Your task to perform on an android device: add a contact Image 0: 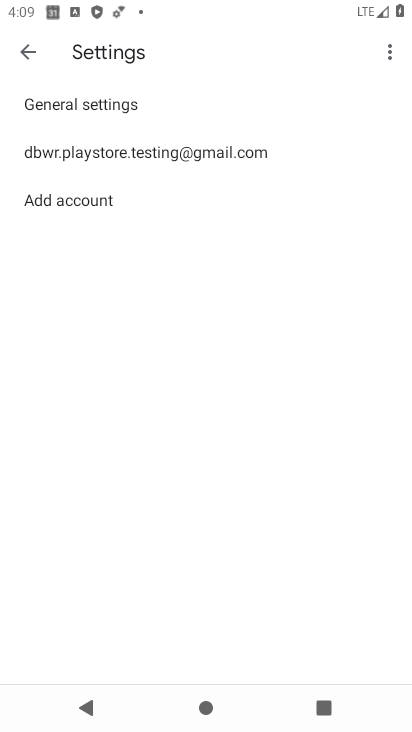
Step 0: press home button
Your task to perform on an android device: add a contact Image 1: 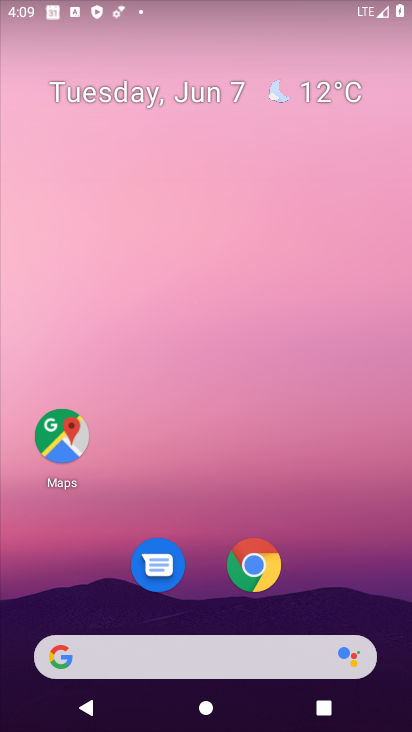
Step 1: drag from (319, 606) to (325, 105)
Your task to perform on an android device: add a contact Image 2: 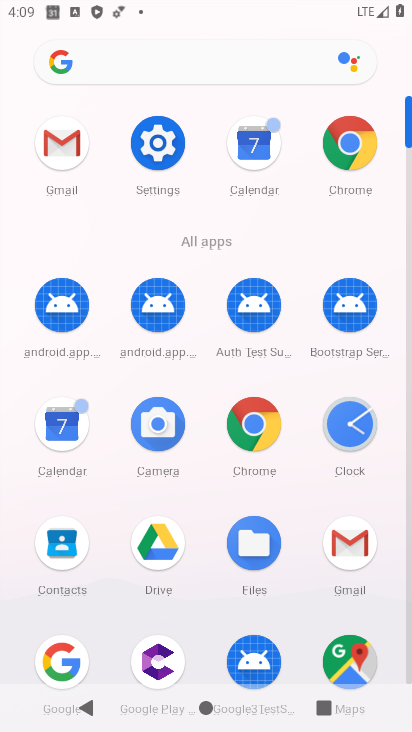
Step 2: click (73, 547)
Your task to perform on an android device: add a contact Image 3: 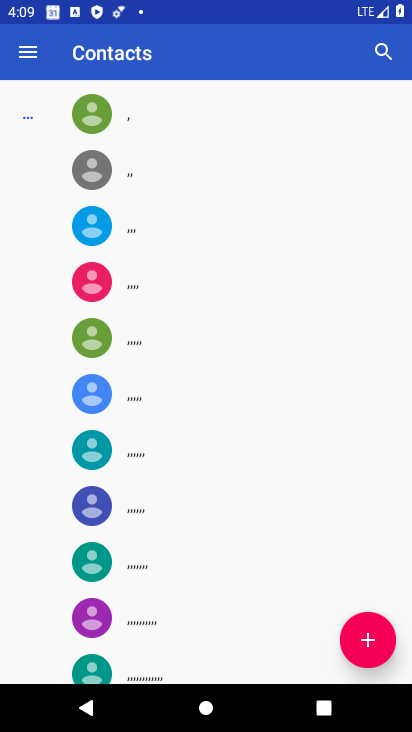
Step 3: click (381, 642)
Your task to perform on an android device: add a contact Image 4: 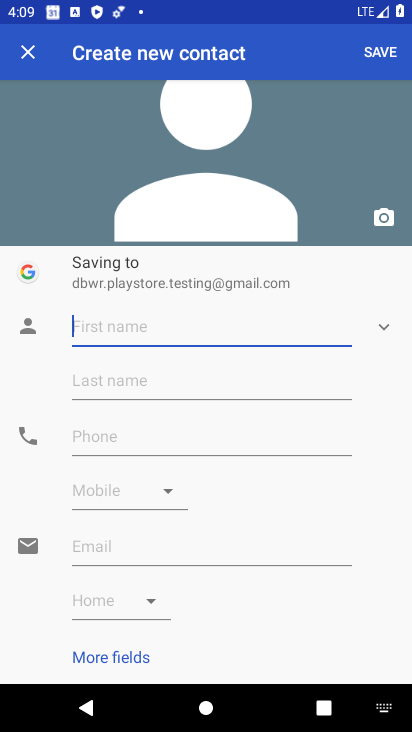
Step 4: type "fuj7hhdctyfr"
Your task to perform on an android device: add a contact Image 5: 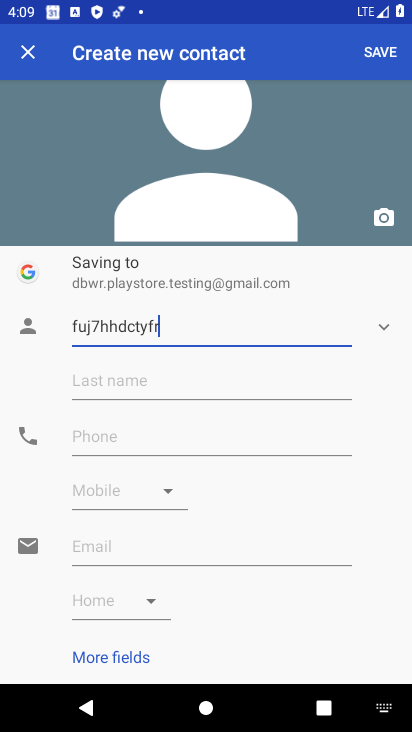
Step 5: click (156, 440)
Your task to perform on an android device: add a contact Image 6: 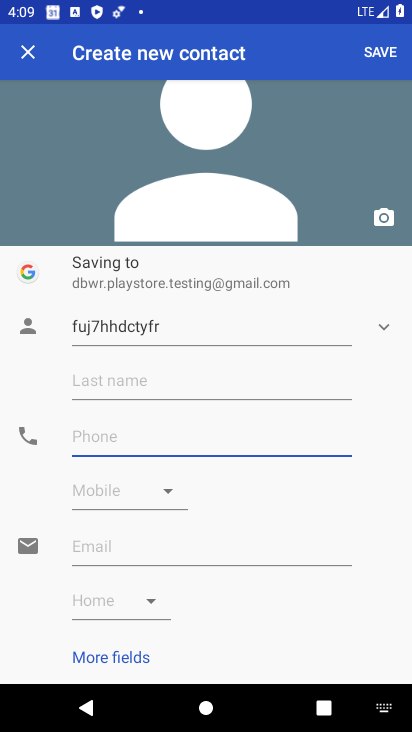
Step 6: type "0987654329"
Your task to perform on an android device: add a contact Image 7: 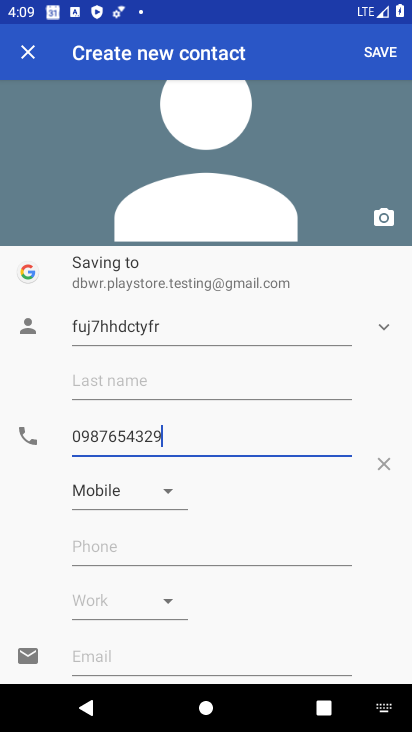
Step 7: click (391, 56)
Your task to perform on an android device: add a contact Image 8: 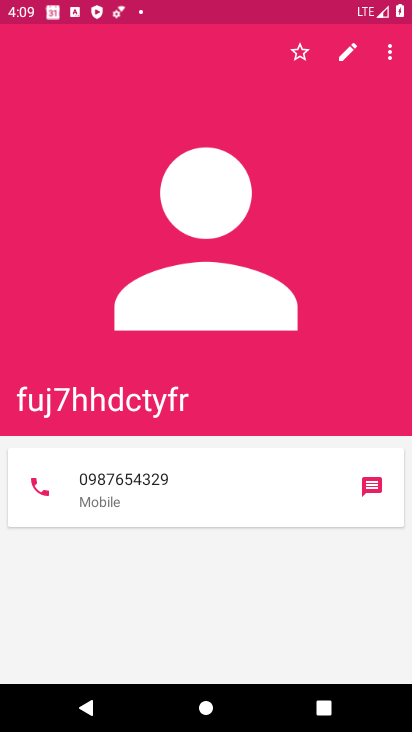
Step 8: task complete